Your task to perform on an android device: Go to Maps Image 0: 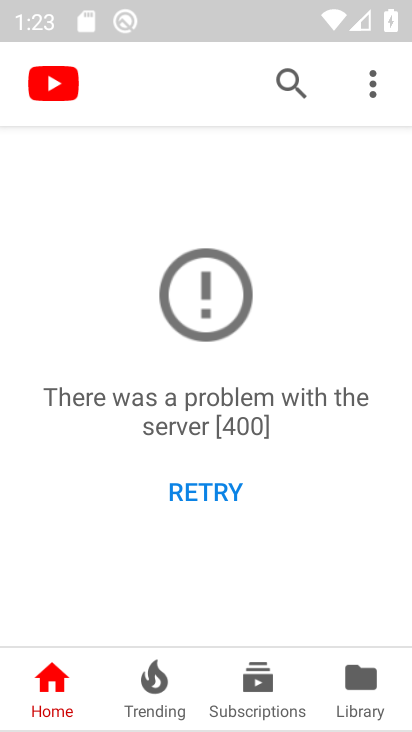
Step 0: press home button
Your task to perform on an android device: Go to Maps Image 1: 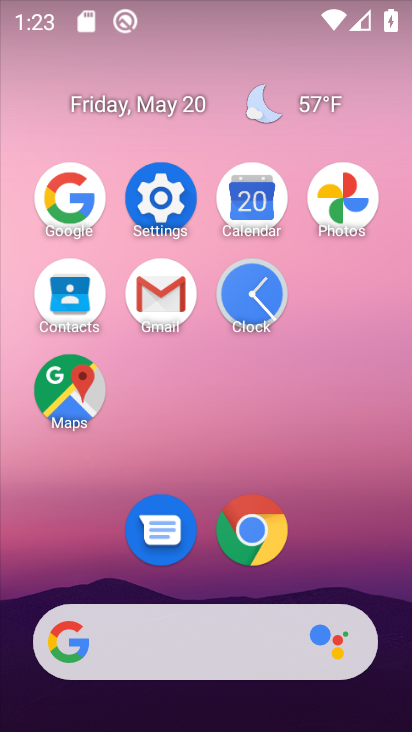
Step 1: click (71, 384)
Your task to perform on an android device: Go to Maps Image 2: 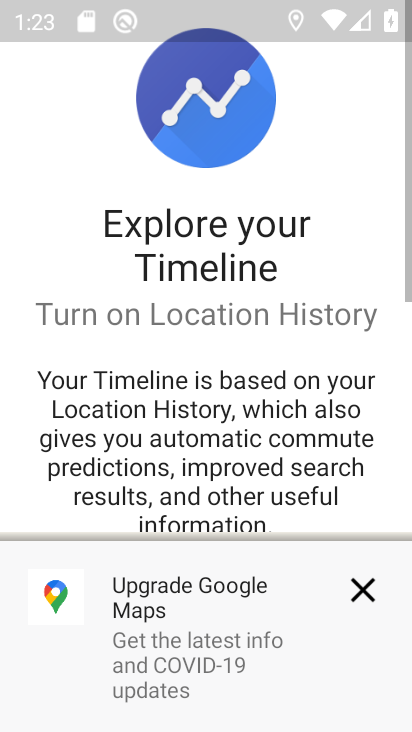
Step 2: task complete